Your task to perform on an android device: check storage Image 0: 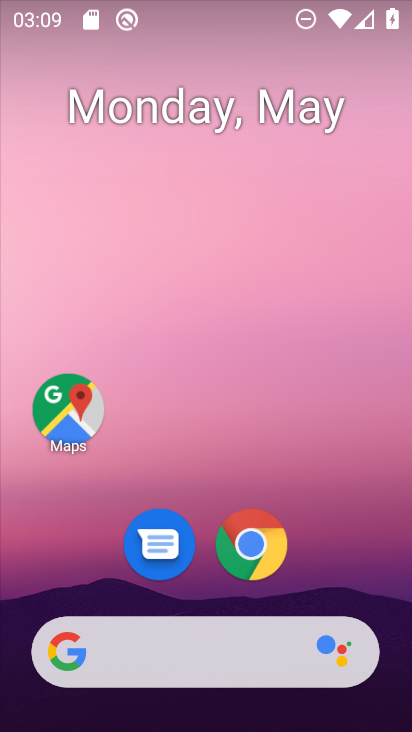
Step 0: drag from (381, 586) to (360, 309)
Your task to perform on an android device: check storage Image 1: 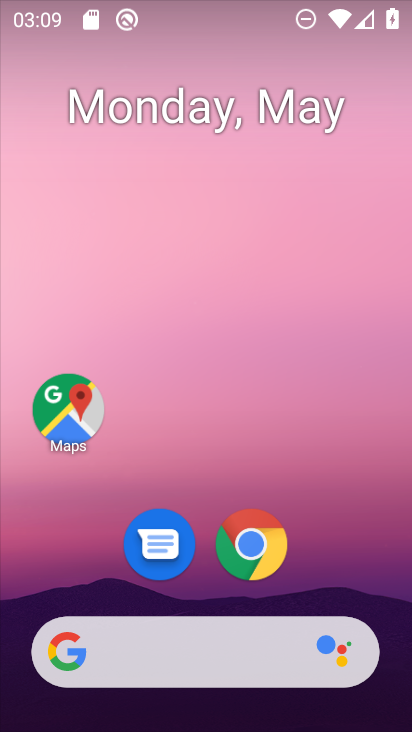
Step 1: drag from (374, 509) to (353, 276)
Your task to perform on an android device: check storage Image 2: 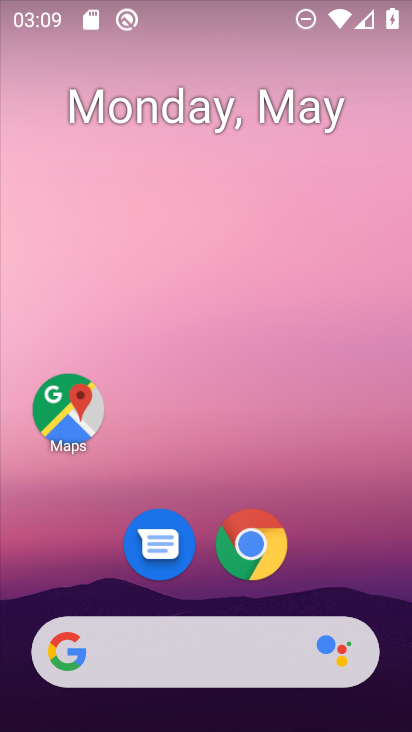
Step 2: drag from (344, 548) to (340, 183)
Your task to perform on an android device: check storage Image 3: 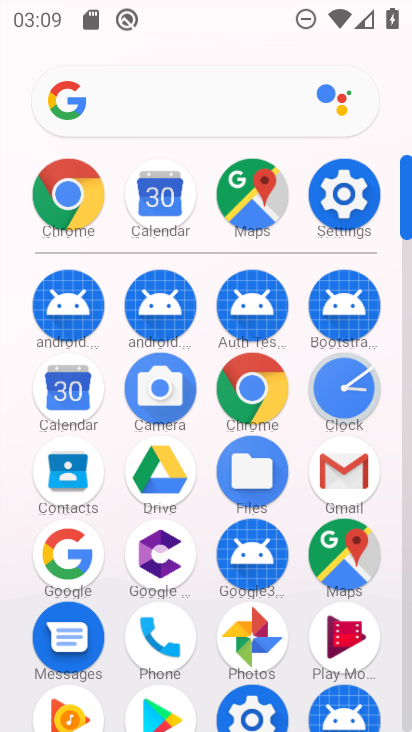
Step 3: click (348, 214)
Your task to perform on an android device: check storage Image 4: 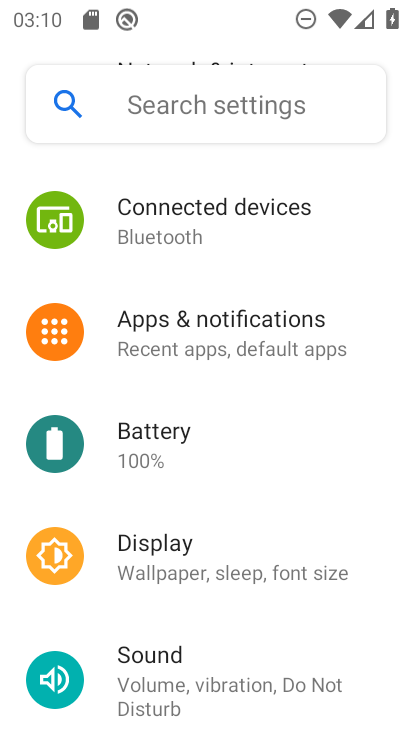
Step 4: drag from (354, 256) to (342, 425)
Your task to perform on an android device: check storage Image 5: 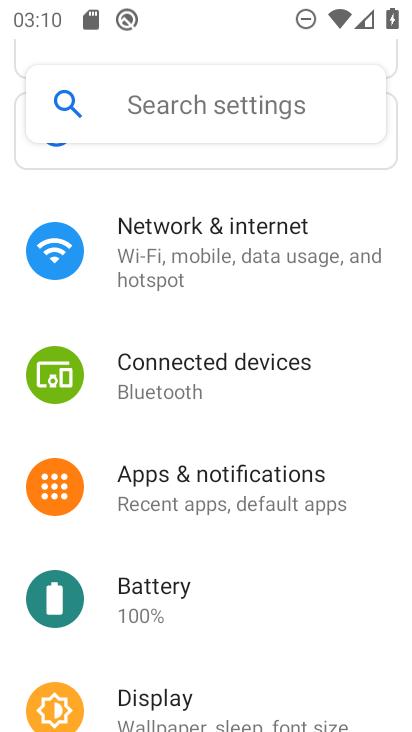
Step 5: drag from (330, 566) to (361, 339)
Your task to perform on an android device: check storage Image 6: 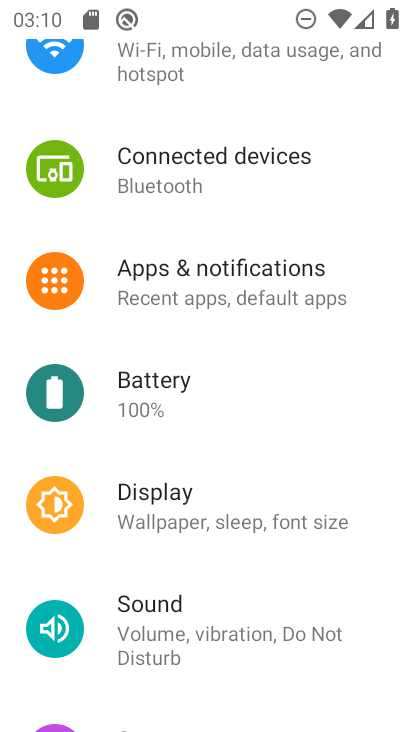
Step 6: drag from (353, 568) to (379, 361)
Your task to perform on an android device: check storage Image 7: 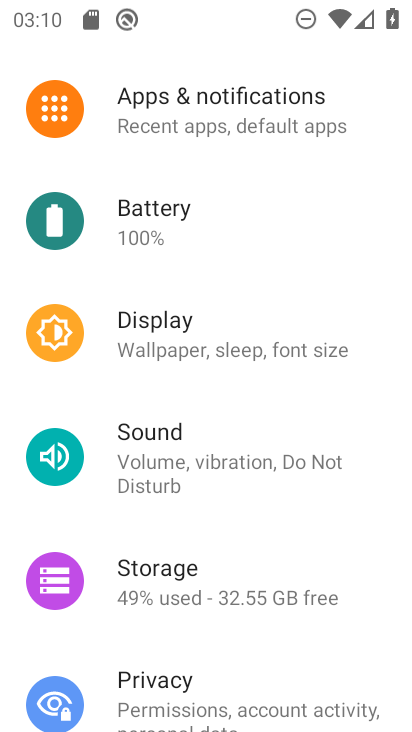
Step 7: drag from (348, 556) to (352, 345)
Your task to perform on an android device: check storage Image 8: 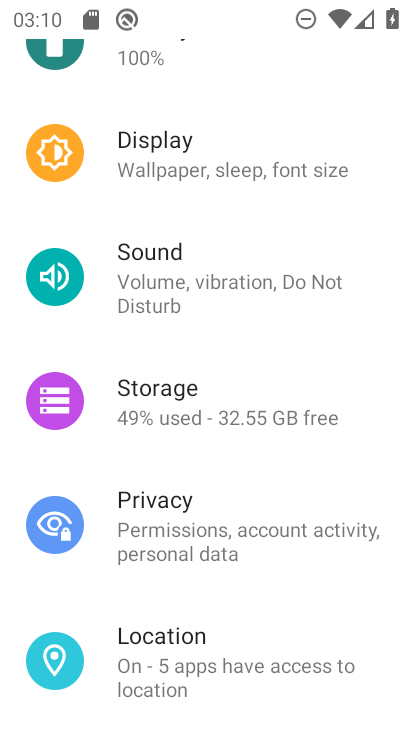
Step 8: drag from (361, 602) to (375, 452)
Your task to perform on an android device: check storage Image 9: 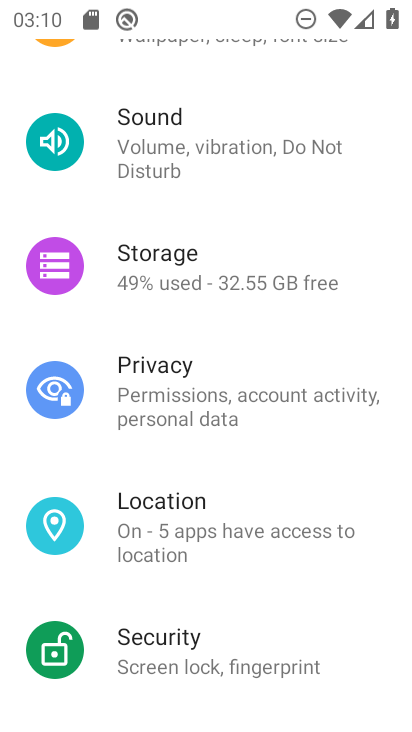
Step 9: drag from (384, 264) to (358, 410)
Your task to perform on an android device: check storage Image 10: 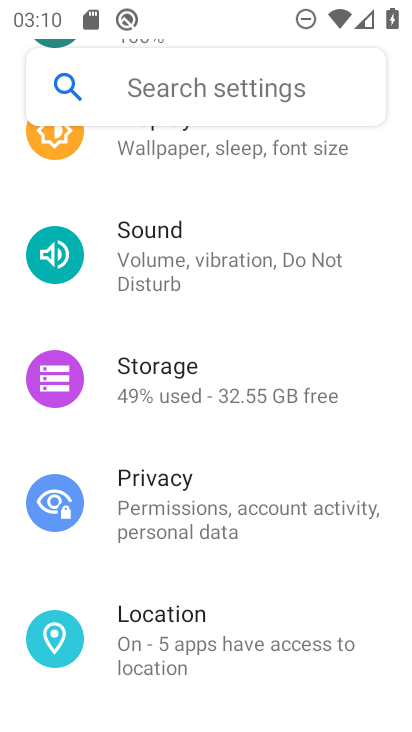
Step 10: click (300, 410)
Your task to perform on an android device: check storage Image 11: 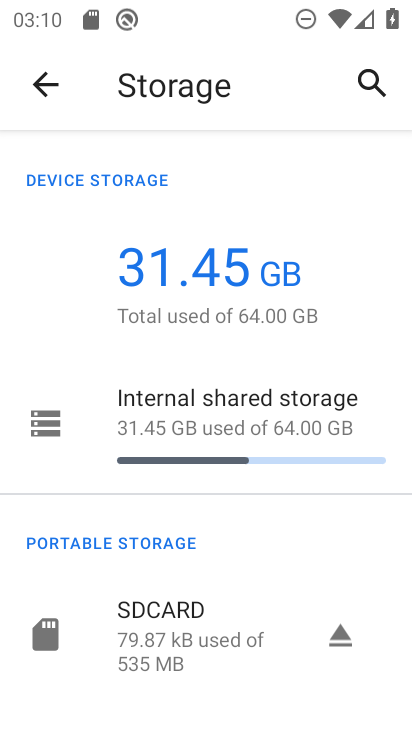
Step 11: task complete